Your task to perform on an android device: move an email to a new category in the gmail app Image 0: 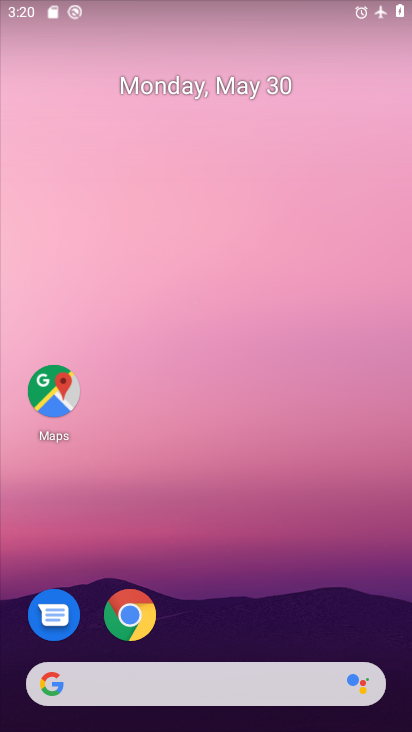
Step 0: drag from (259, 591) to (289, 20)
Your task to perform on an android device: move an email to a new category in the gmail app Image 1: 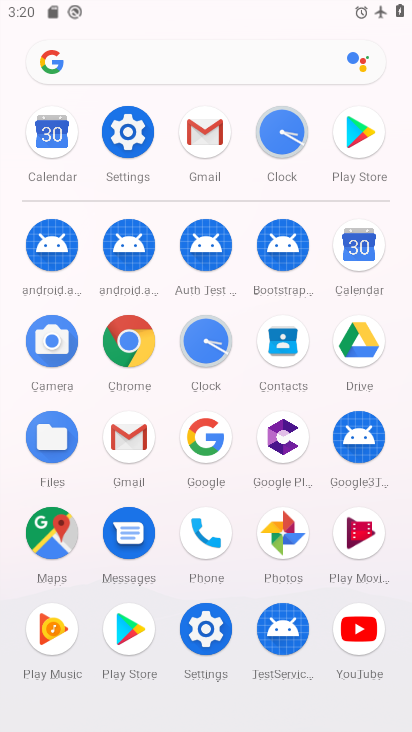
Step 1: click (216, 138)
Your task to perform on an android device: move an email to a new category in the gmail app Image 2: 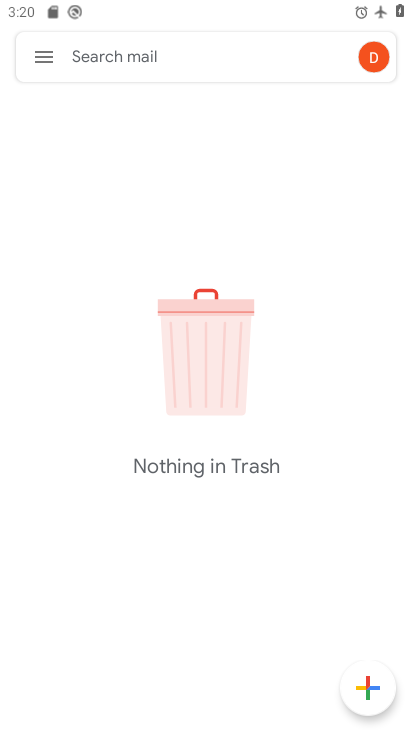
Step 2: click (44, 51)
Your task to perform on an android device: move an email to a new category in the gmail app Image 3: 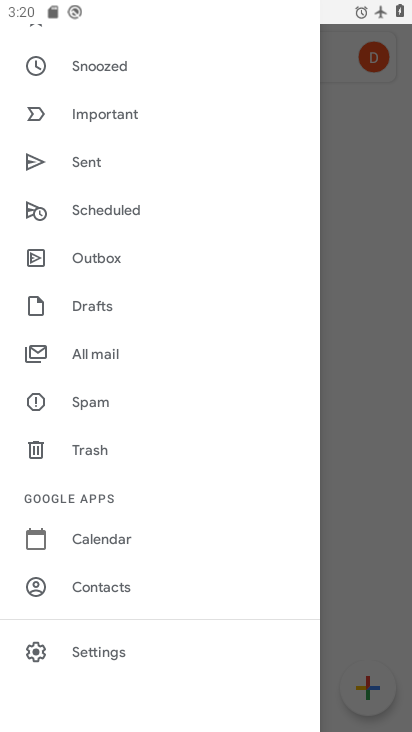
Step 3: click (149, 355)
Your task to perform on an android device: move an email to a new category in the gmail app Image 4: 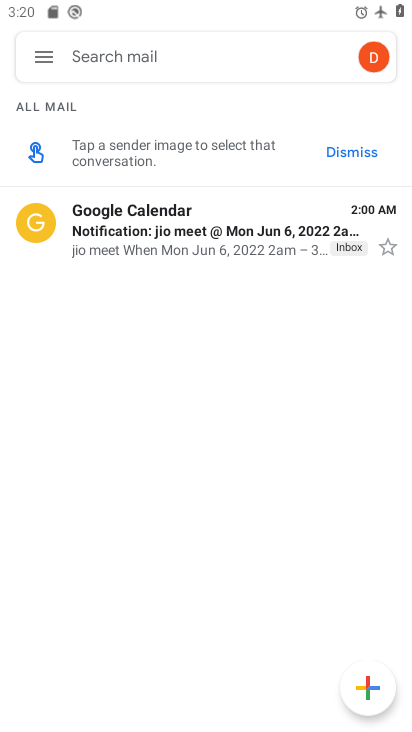
Step 4: click (179, 228)
Your task to perform on an android device: move an email to a new category in the gmail app Image 5: 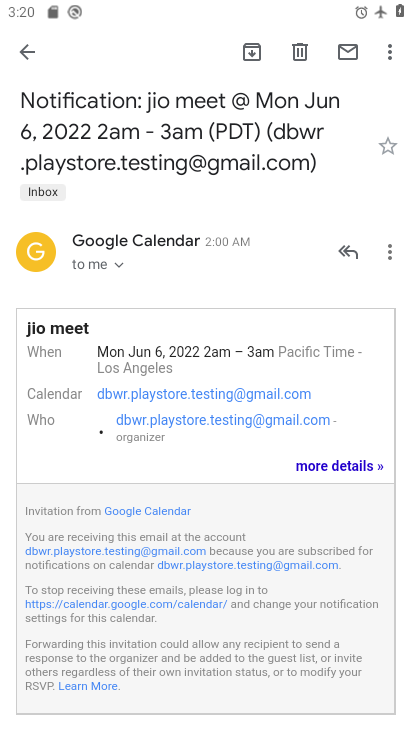
Step 5: click (390, 50)
Your task to perform on an android device: move an email to a new category in the gmail app Image 6: 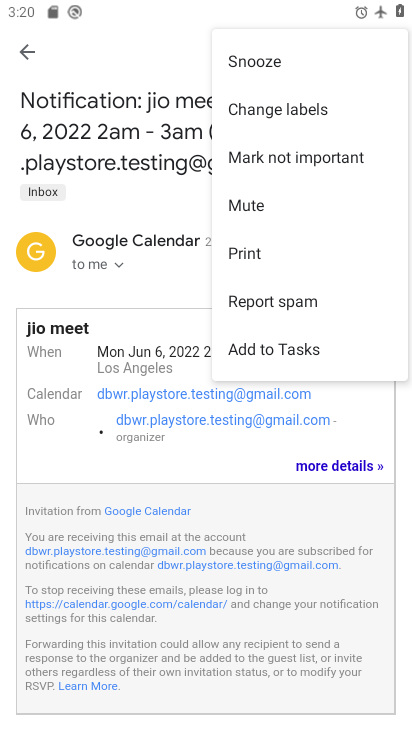
Step 6: click (300, 147)
Your task to perform on an android device: move an email to a new category in the gmail app Image 7: 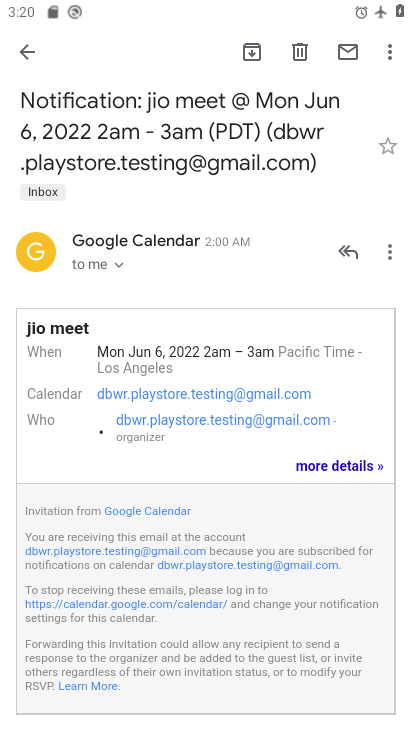
Step 7: task complete